Your task to perform on an android device: see creations saved in the google photos Image 0: 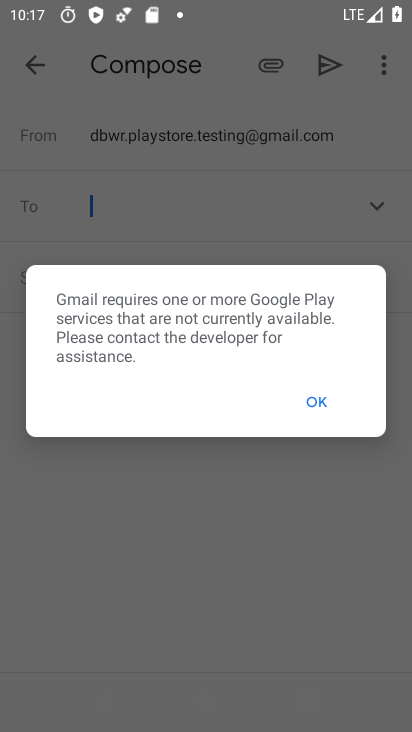
Step 0: press home button
Your task to perform on an android device: see creations saved in the google photos Image 1: 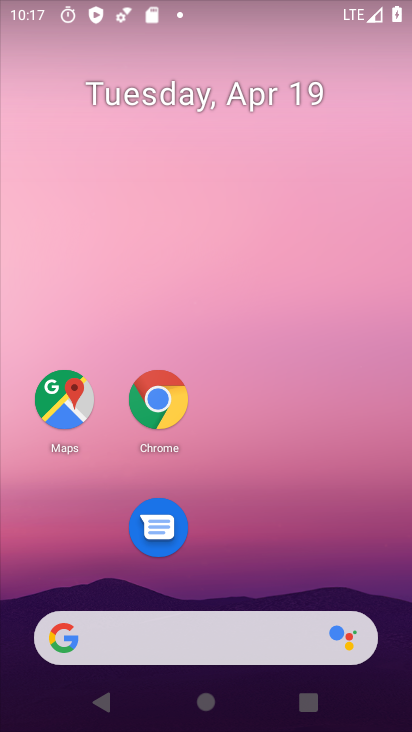
Step 1: drag from (240, 671) to (216, 182)
Your task to perform on an android device: see creations saved in the google photos Image 2: 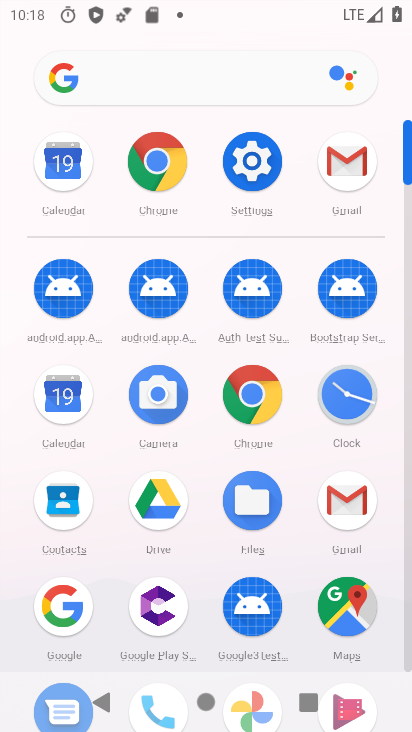
Step 2: drag from (209, 454) to (227, 268)
Your task to perform on an android device: see creations saved in the google photos Image 3: 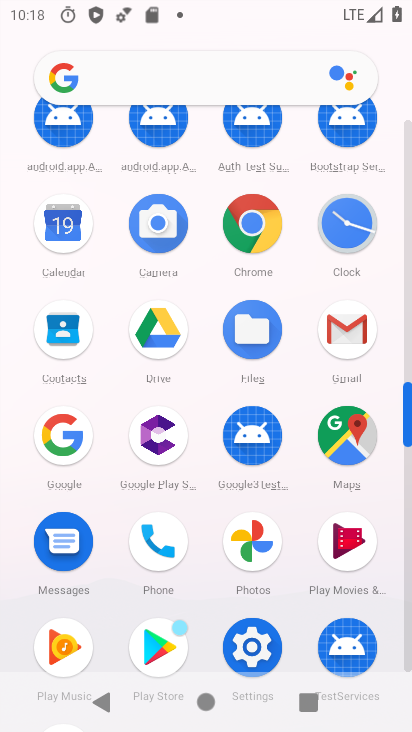
Step 3: click (239, 533)
Your task to perform on an android device: see creations saved in the google photos Image 4: 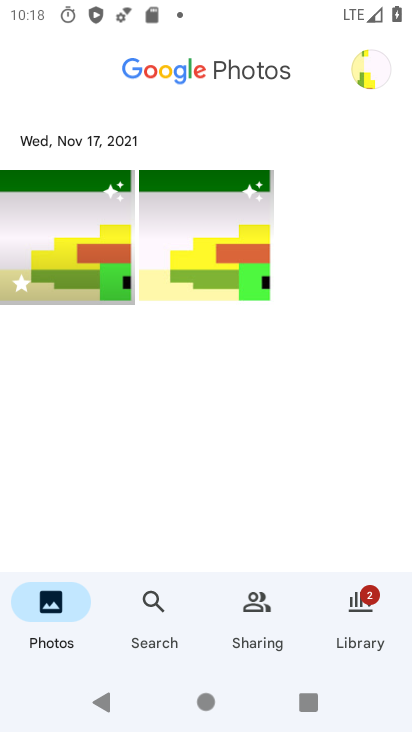
Step 4: click (208, 245)
Your task to perform on an android device: see creations saved in the google photos Image 5: 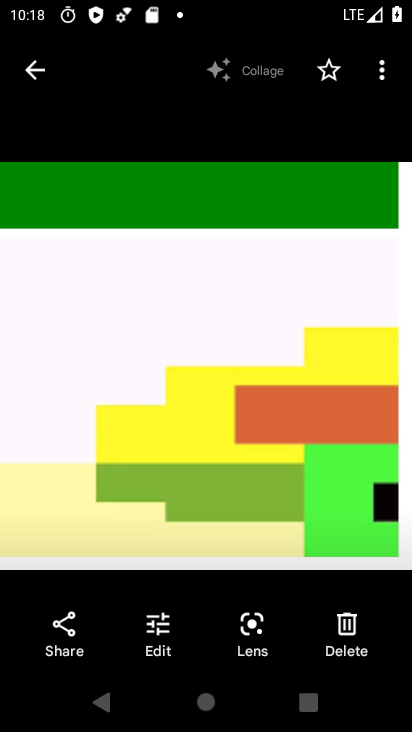
Step 5: click (380, 83)
Your task to perform on an android device: see creations saved in the google photos Image 6: 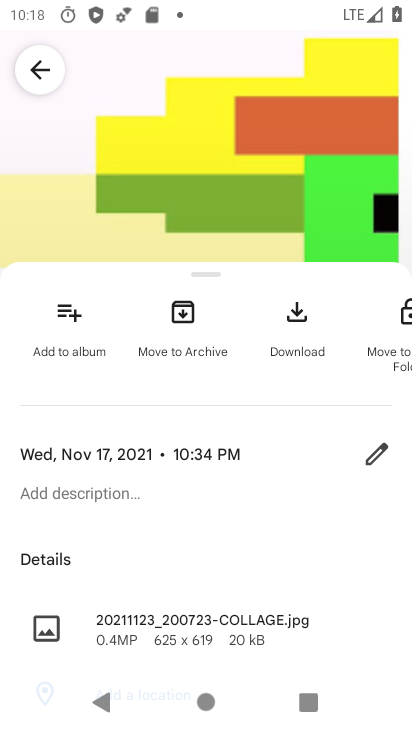
Step 6: task complete